Your task to perform on an android device: Open my contact list Image 0: 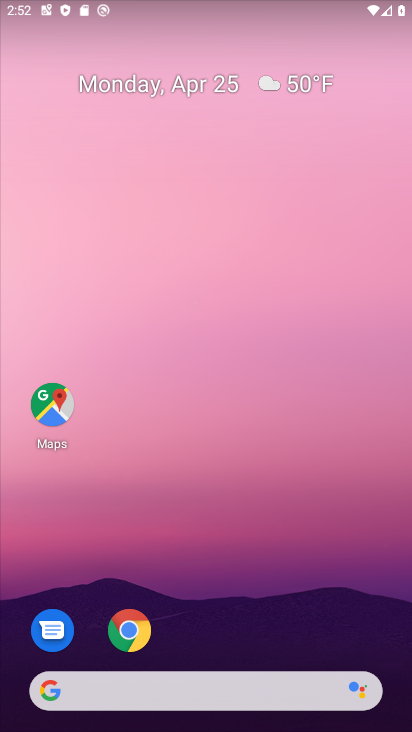
Step 0: drag from (228, 637) to (130, 179)
Your task to perform on an android device: Open my contact list Image 1: 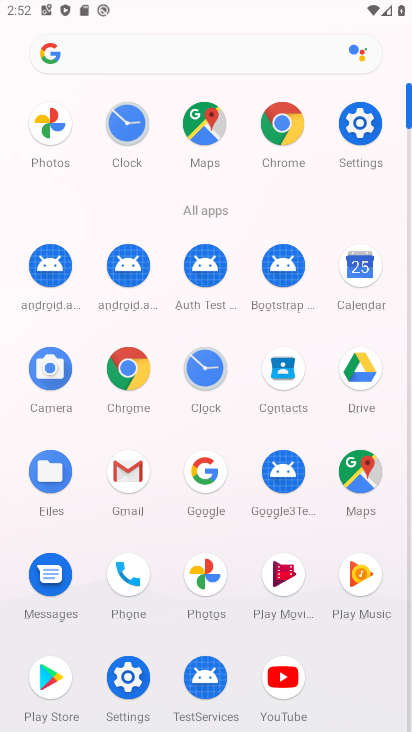
Step 1: click (287, 355)
Your task to perform on an android device: Open my contact list Image 2: 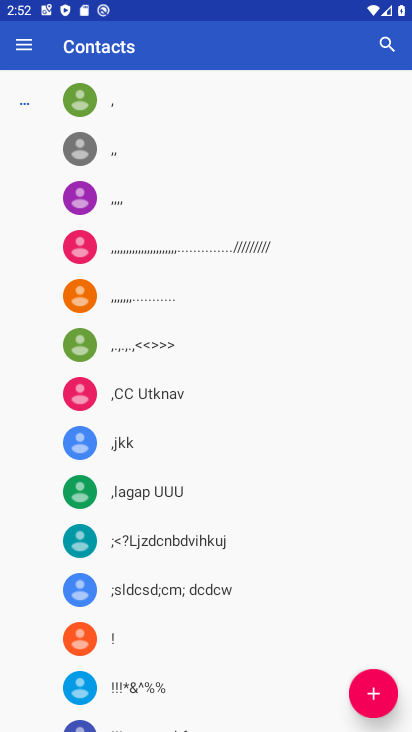
Step 2: task complete